Your task to perform on an android device: toggle translation in the chrome app Image 0: 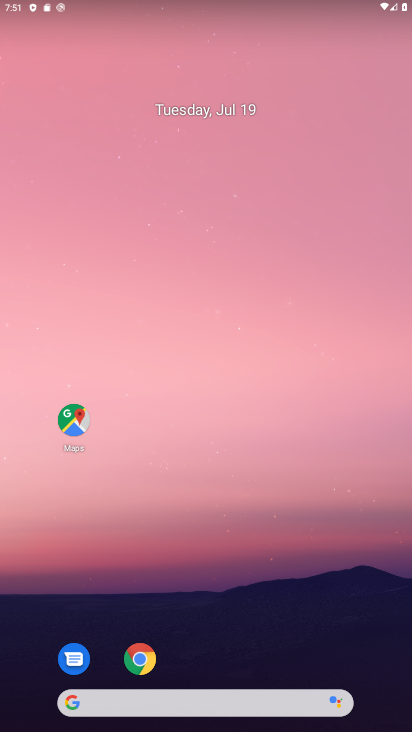
Step 0: click (149, 667)
Your task to perform on an android device: toggle translation in the chrome app Image 1: 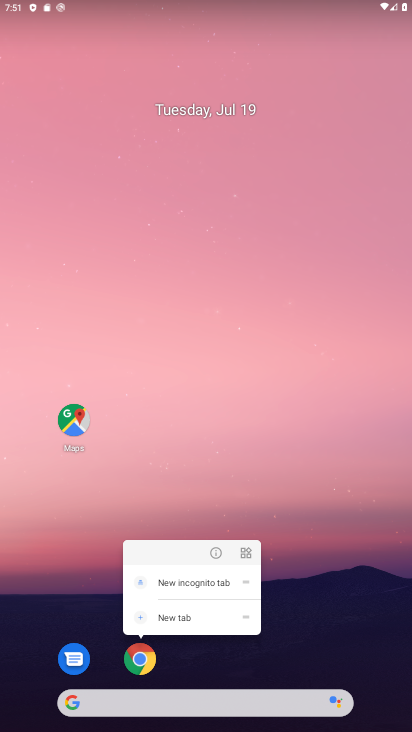
Step 1: click (137, 658)
Your task to perform on an android device: toggle translation in the chrome app Image 2: 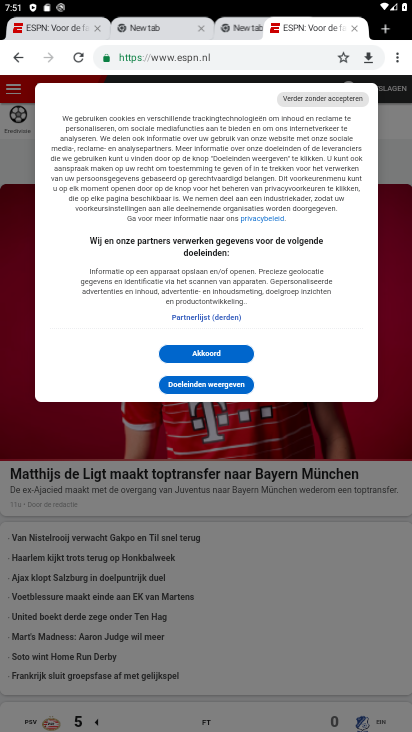
Step 2: click (394, 56)
Your task to perform on an android device: toggle translation in the chrome app Image 3: 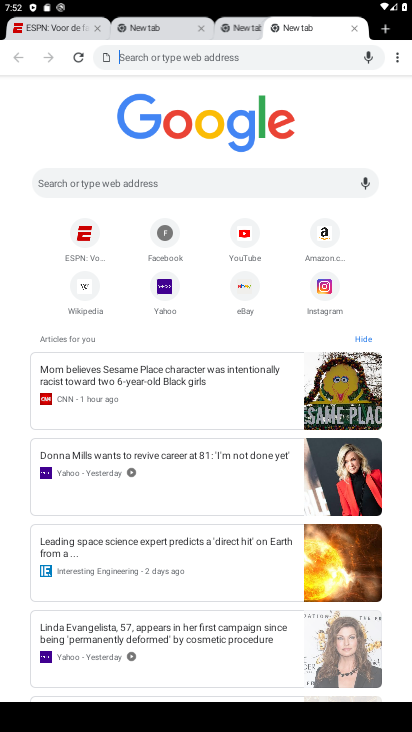
Step 3: click (398, 54)
Your task to perform on an android device: toggle translation in the chrome app Image 4: 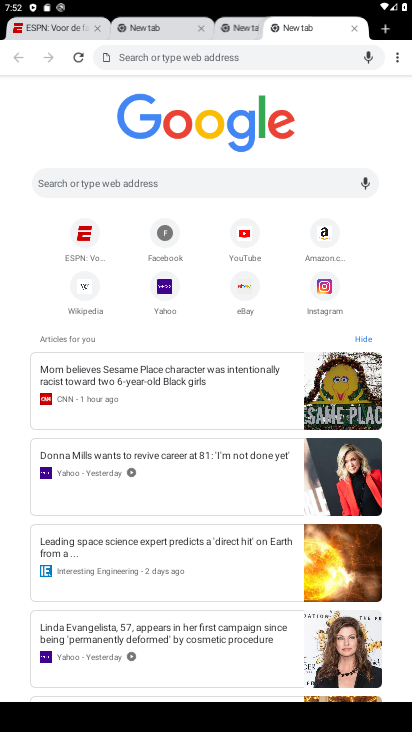
Step 4: click (200, 26)
Your task to perform on an android device: toggle translation in the chrome app Image 5: 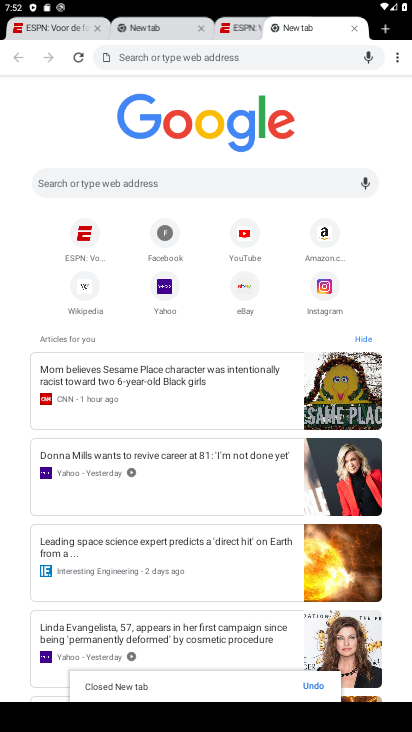
Step 5: click (201, 27)
Your task to perform on an android device: toggle translation in the chrome app Image 6: 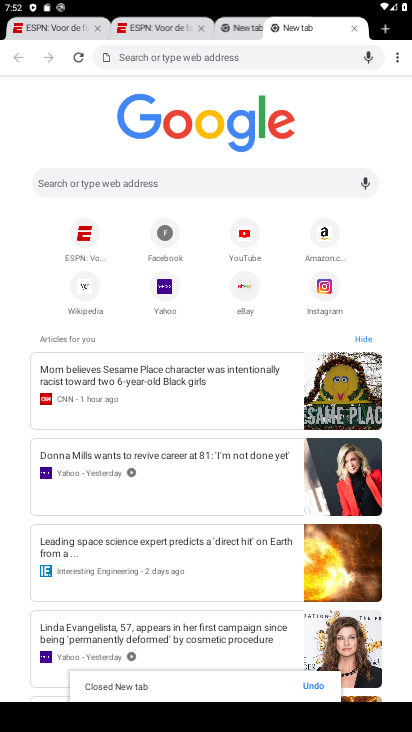
Step 6: click (201, 27)
Your task to perform on an android device: toggle translation in the chrome app Image 7: 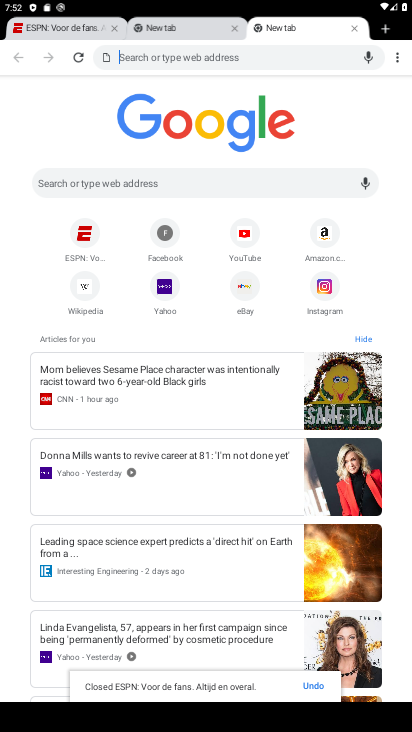
Step 7: click (201, 27)
Your task to perform on an android device: toggle translation in the chrome app Image 8: 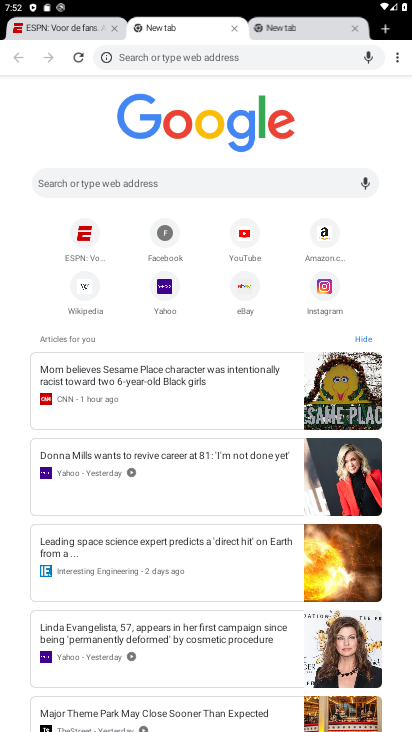
Step 8: click (229, 30)
Your task to perform on an android device: toggle translation in the chrome app Image 9: 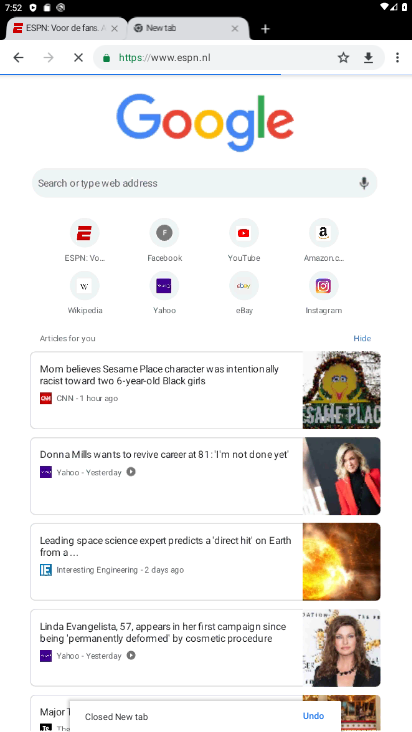
Step 9: click (393, 60)
Your task to perform on an android device: toggle translation in the chrome app Image 10: 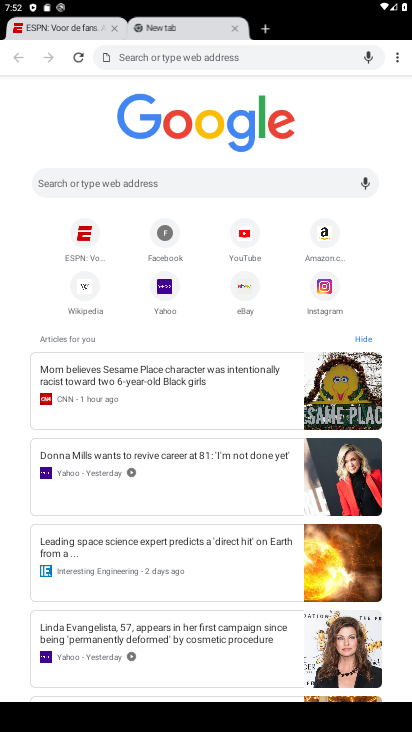
Step 10: click (397, 56)
Your task to perform on an android device: toggle translation in the chrome app Image 11: 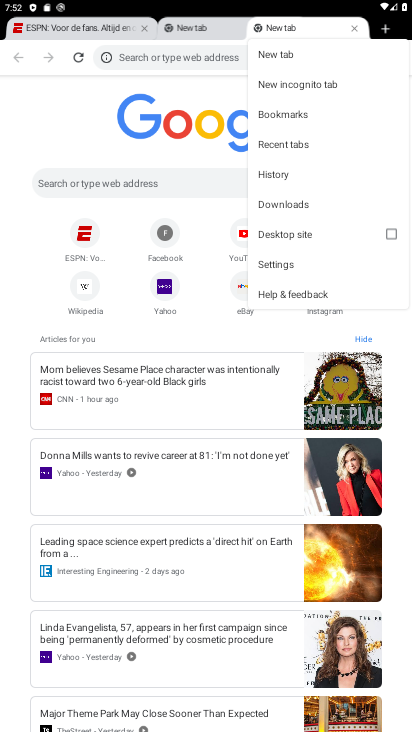
Step 11: click (274, 262)
Your task to perform on an android device: toggle translation in the chrome app Image 12: 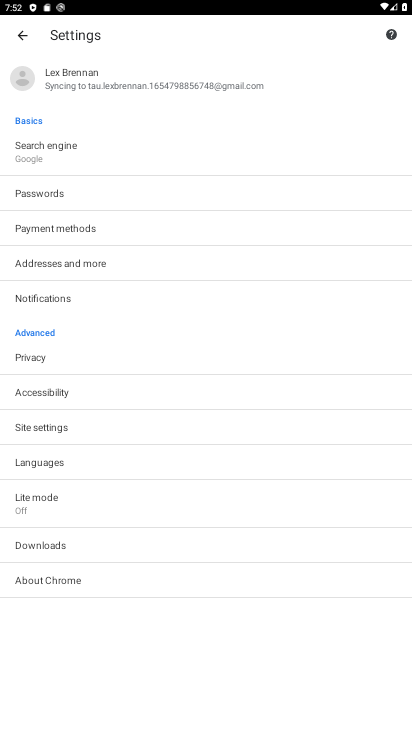
Step 12: click (25, 459)
Your task to perform on an android device: toggle translation in the chrome app Image 13: 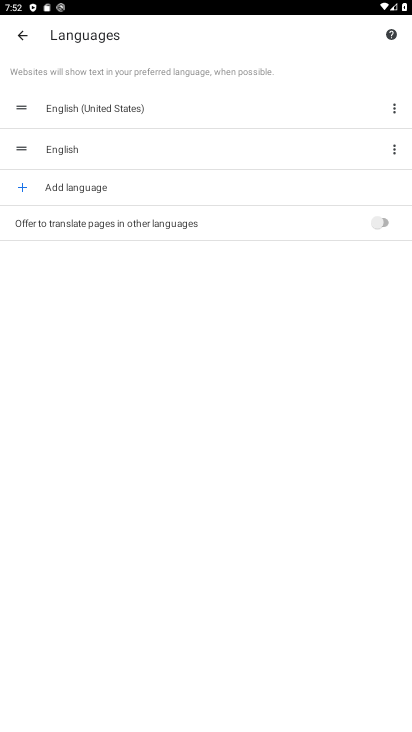
Step 13: click (378, 222)
Your task to perform on an android device: toggle translation in the chrome app Image 14: 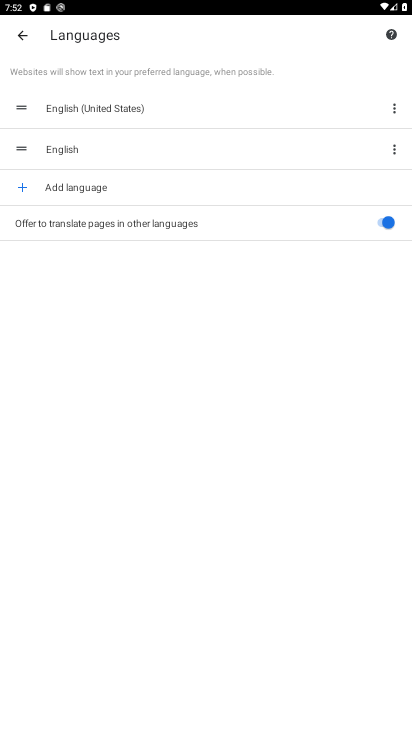
Step 14: task complete